Your task to perform on an android device: Go to Maps Image 0: 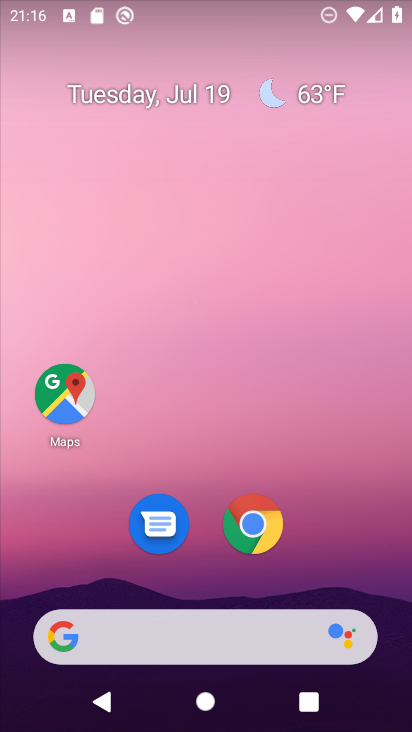
Step 0: click (63, 392)
Your task to perform on an android device: Go to Maps Image 1: 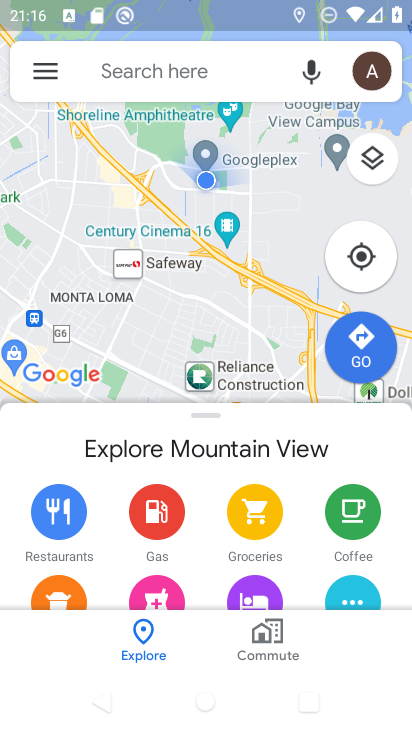
Step 1: task complete